Your task to perform on an android device: change notifications settings Image 0: 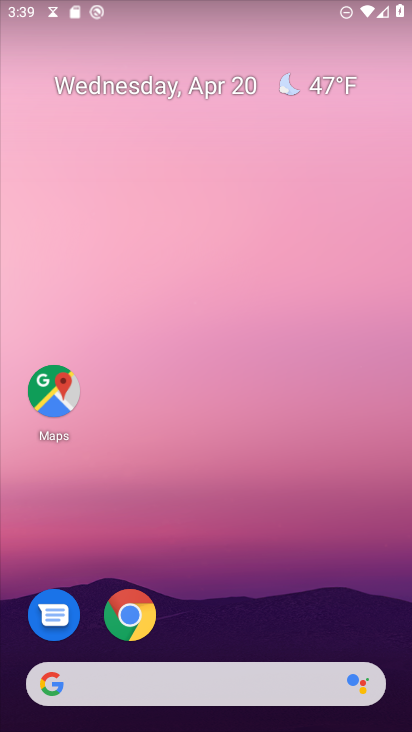
Step 0: drag from (215, 550) to (241, 162)
Your task to perform on an android device: change notifications settings Image 1: 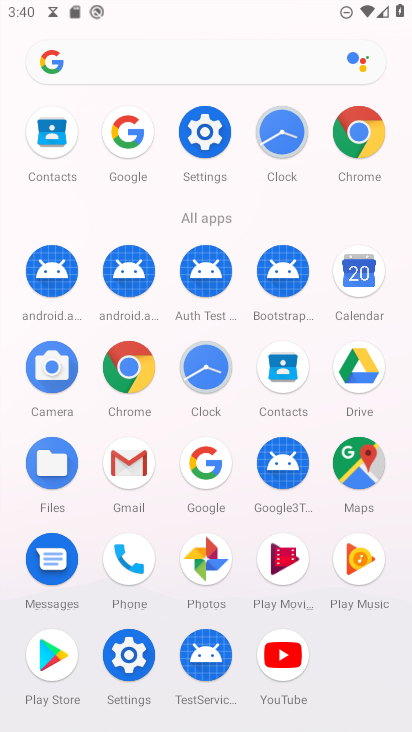
Step 1: click (208, 126)
Your task to perform on an android device: change notifications settings Image 2: 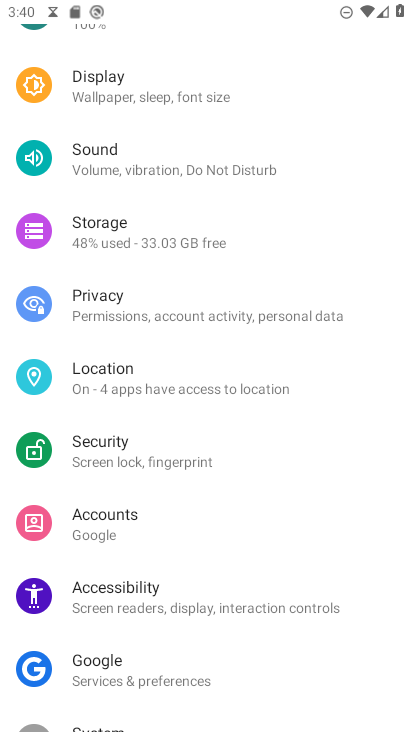
Step 2: drag from (257, 219) to (220, 561)
Your task to perform on an android device: change notifications settings Image 3: 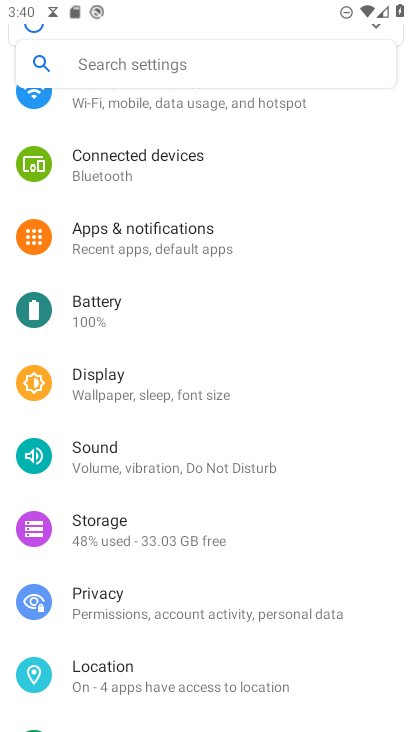
Step 3: click (126, 237)
Your task to perform on an android device: change notifications settings Image 4: 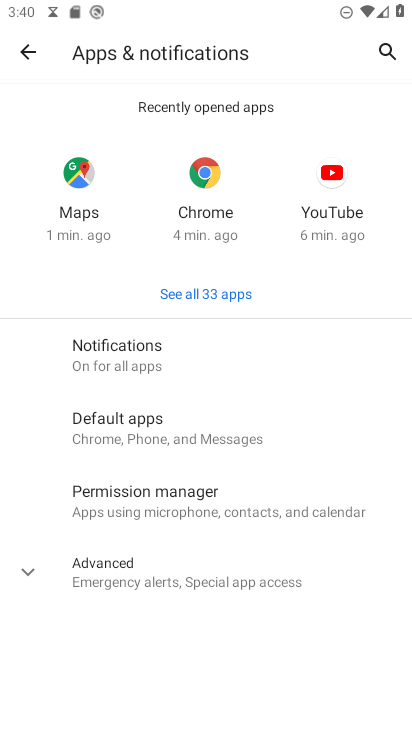
Step 4: click (146, 365)
Your task to perform on an android device: change notifications settings Image 5: 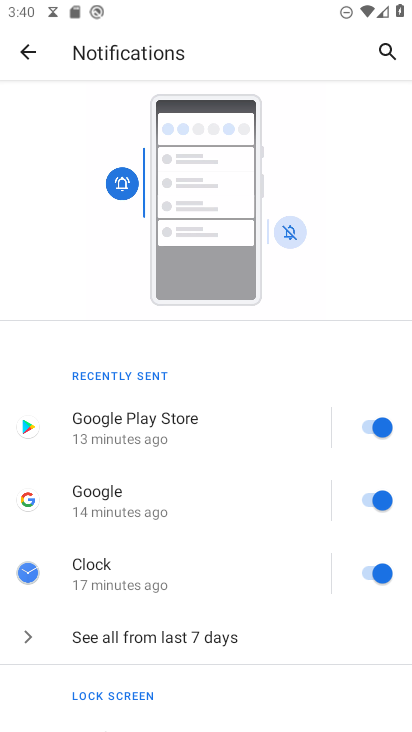
Step 5: drag from (284, 595) to (280, 309)
Your task to perform on an android device: change notifications settings Image 6: 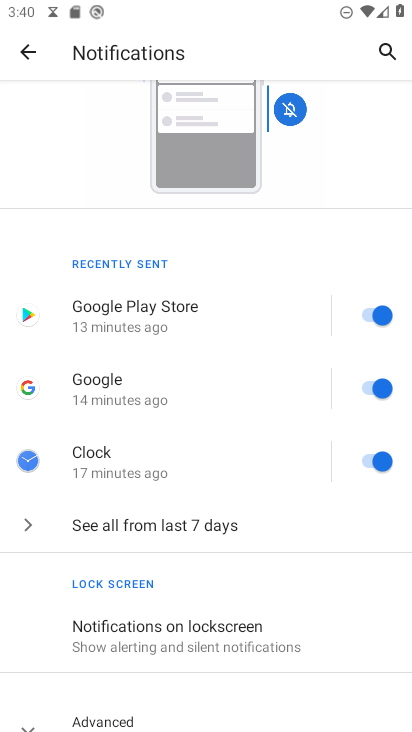
Step 6: click (367, 454)
Your task to perform on an android device: change notifications settings Image 7: 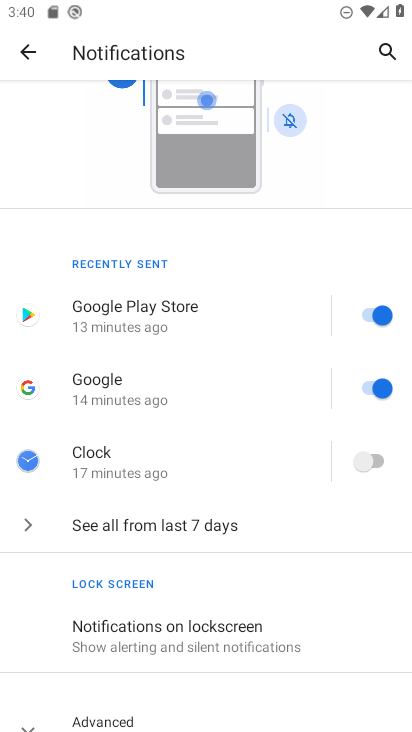
Step 7: task complete